Your task to perform on an android device: Add jbl charge 4 to the cart on amazon, then select checkout. Image 0: 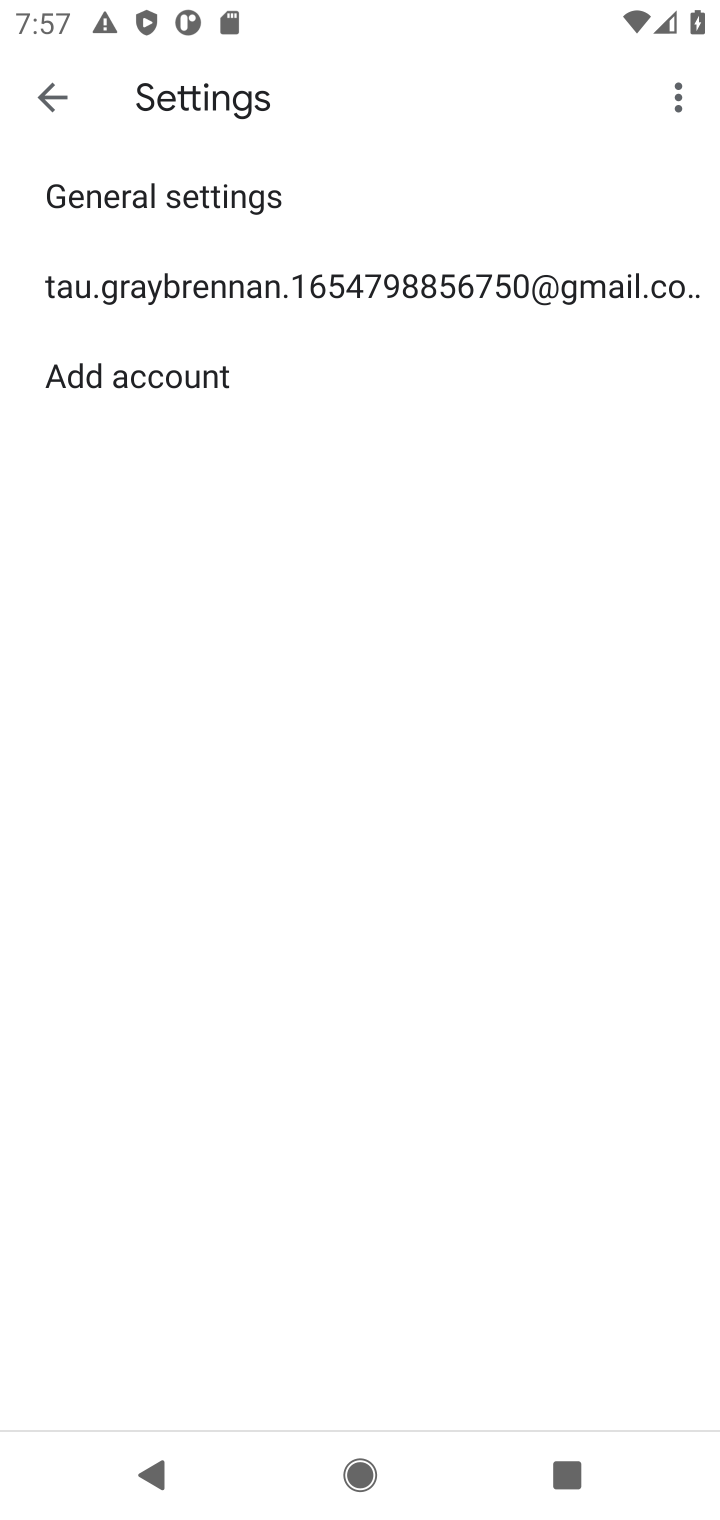
Step 0: press home button
Your task to perform on an android device: Add jbl charge 4 to the cart on amazon, then select checkout. Image 1: 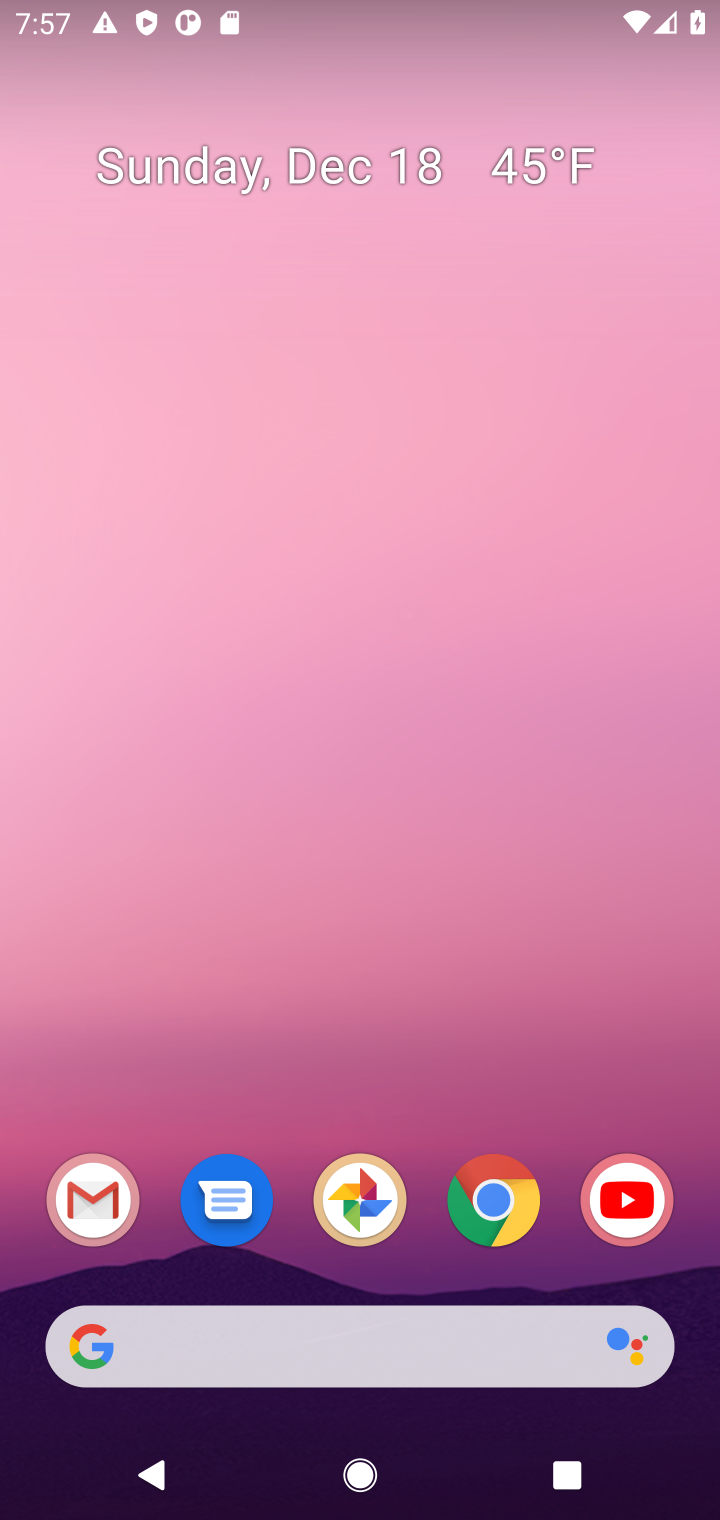
Step 1: click (502, 1206)
Your task to perform on an android device: Add jbl charge 4 to the cart on amazon, then select checkout. Image 2: 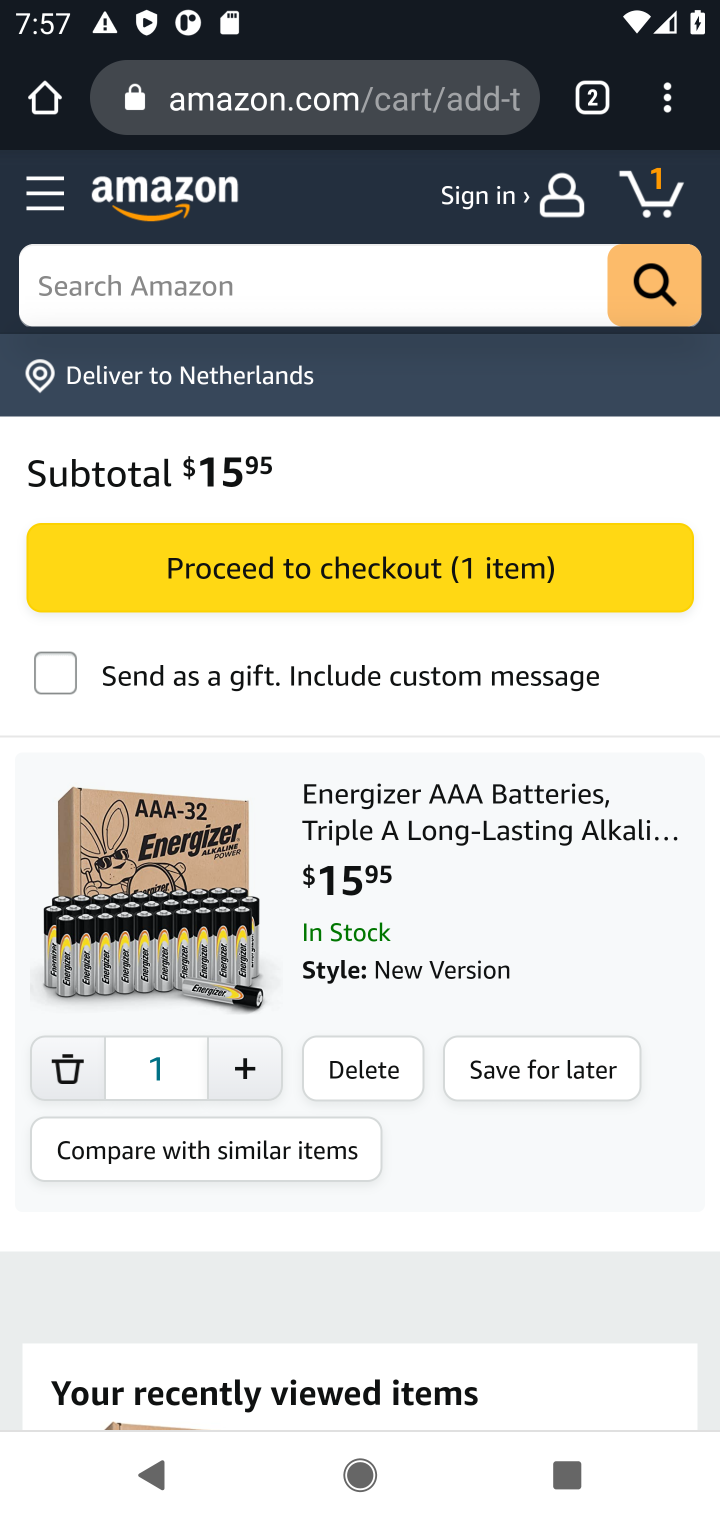
Step 2: click (117, 290)
Your task to perform on an android device: Add jbl charge 4 to the cart on amazon, then select checkout. Image 3: 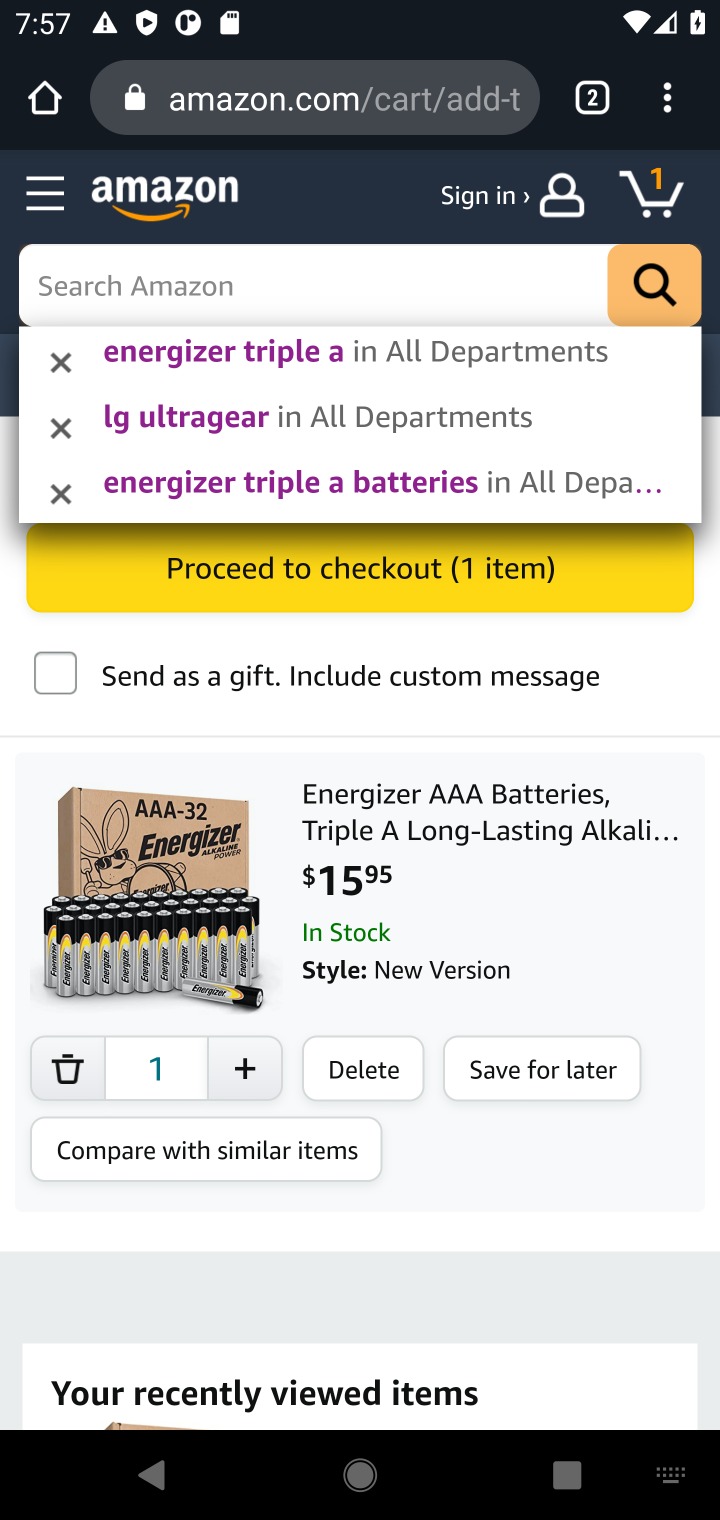
Step 3: type "jbl charge 4"
Your task to perform on an android device: Add jbl charge 4 to the cart on amazon, then select checkout. Image 4: 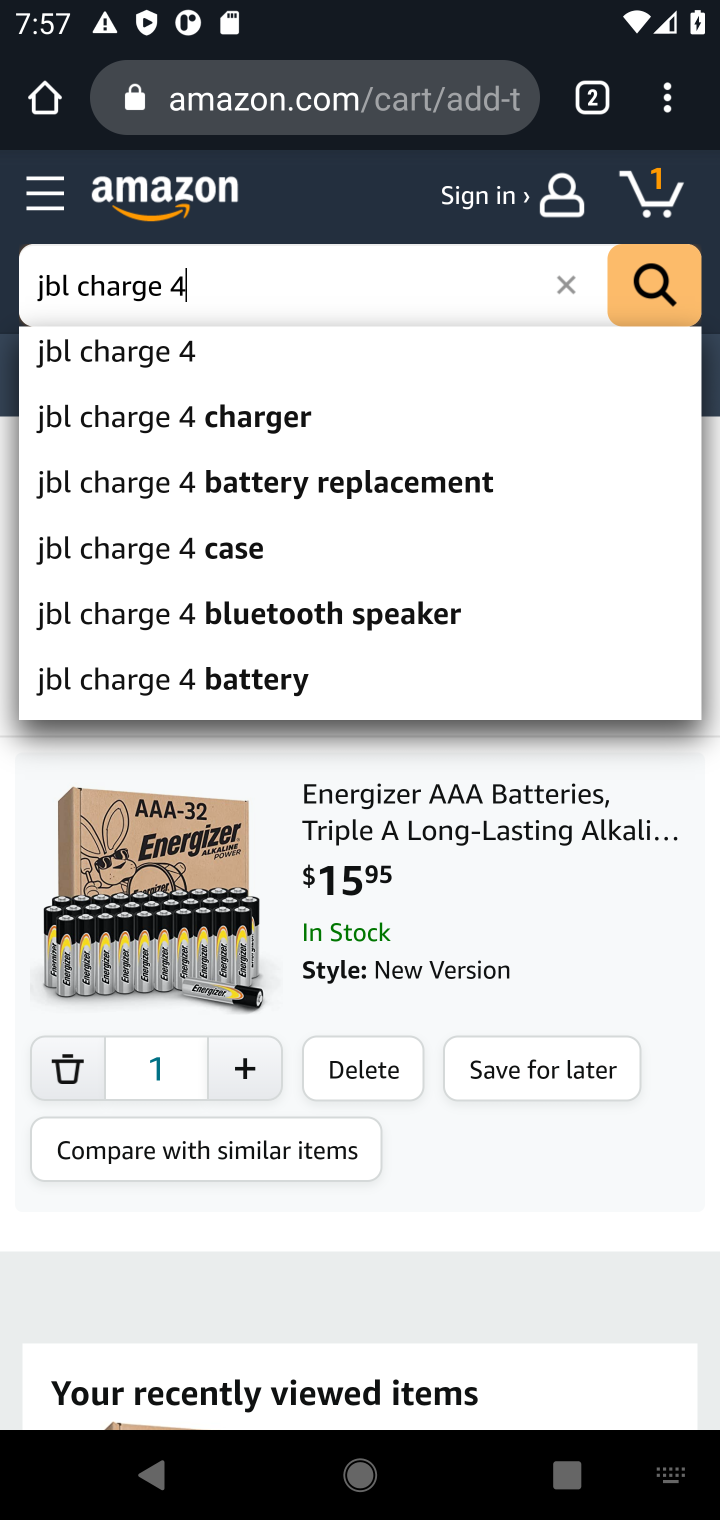
Step 4: click (107, 352)
Your task to perform on an android device: Add jbl charge 4 to the cart on amazon, then select checkout. Image 5: 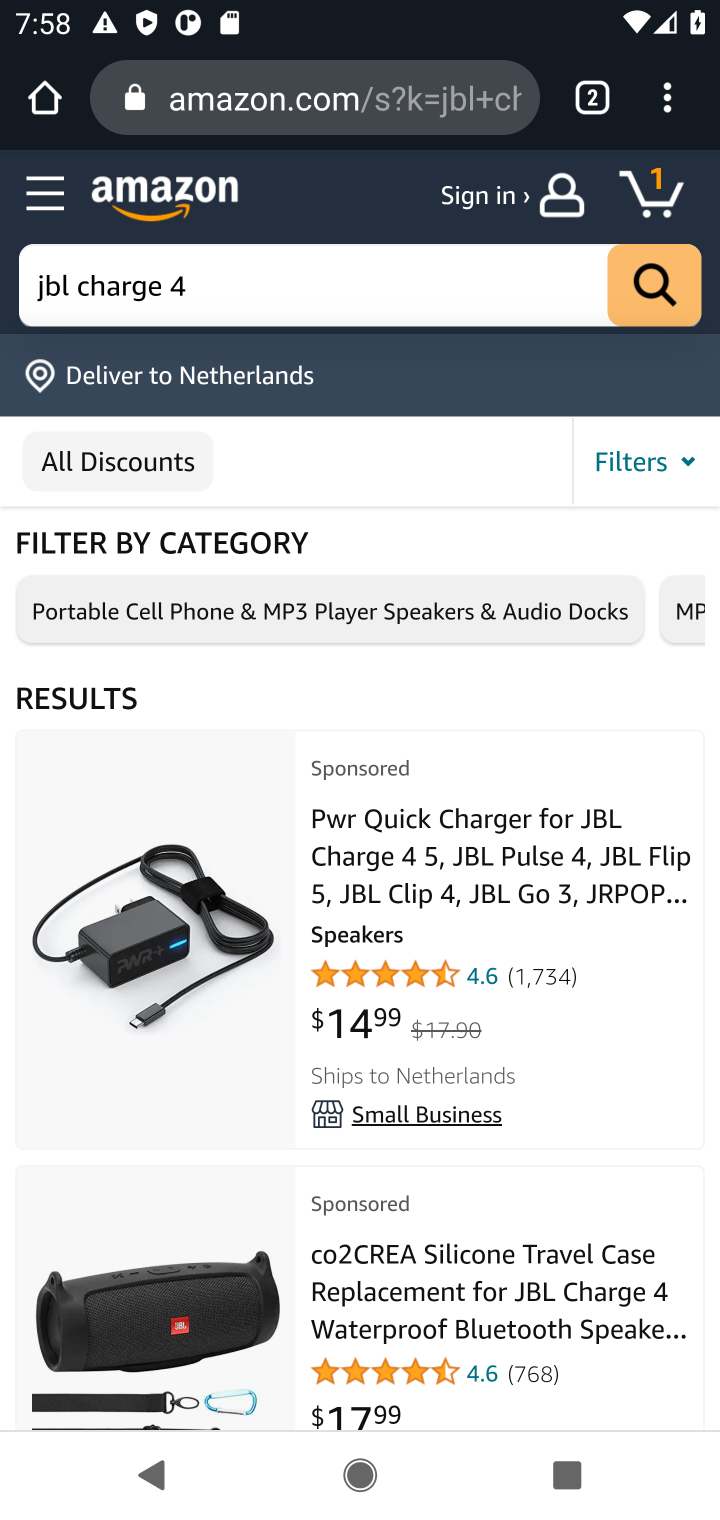
Step 5: click (406, 847)
Your task to perform on an android device: Add jbl charge 4 to the cart on amazon, then select checkout. Image 6: 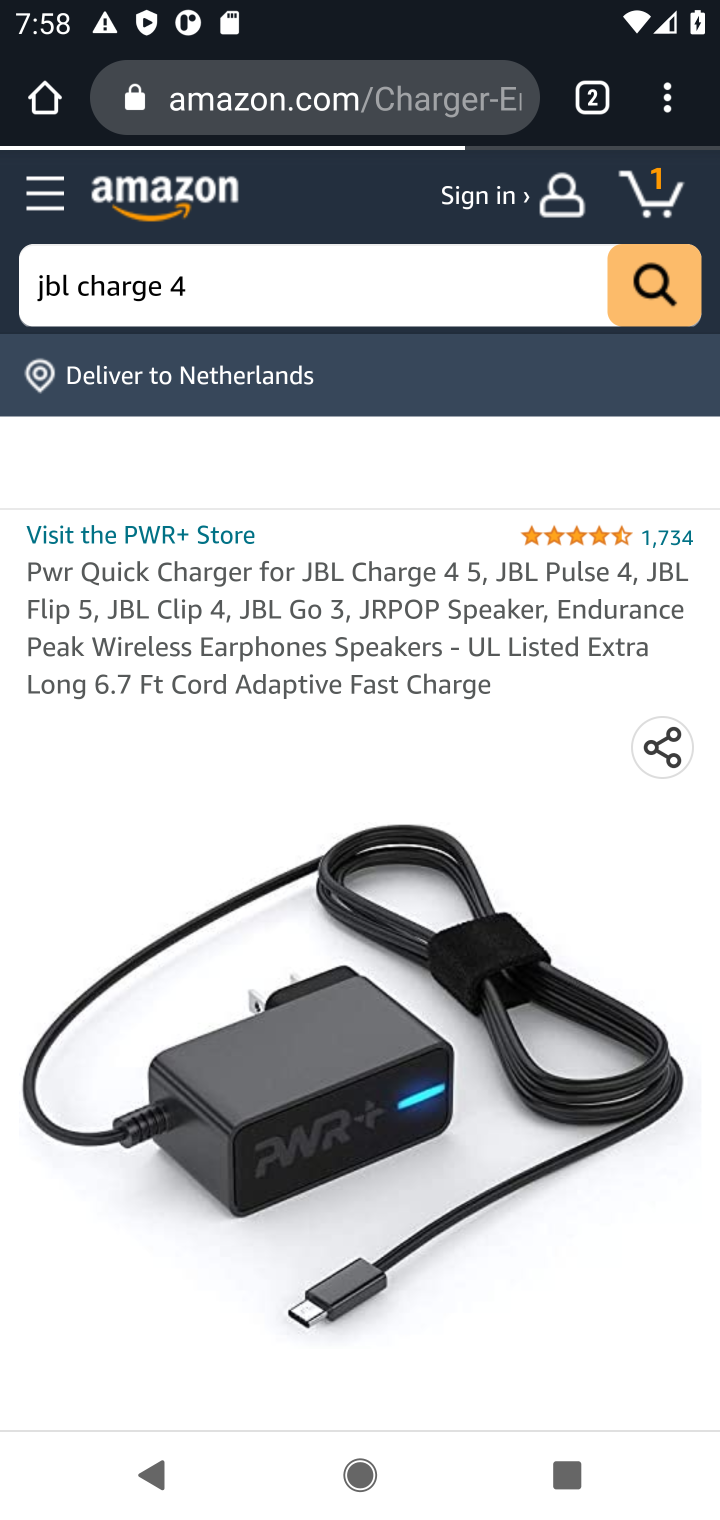
Step 6: drag from (309, 1191) to (304, 496)
Your task to perform on an android device: Add jbl charge 4 to the cart on amazon, then select checkout. Image 7: 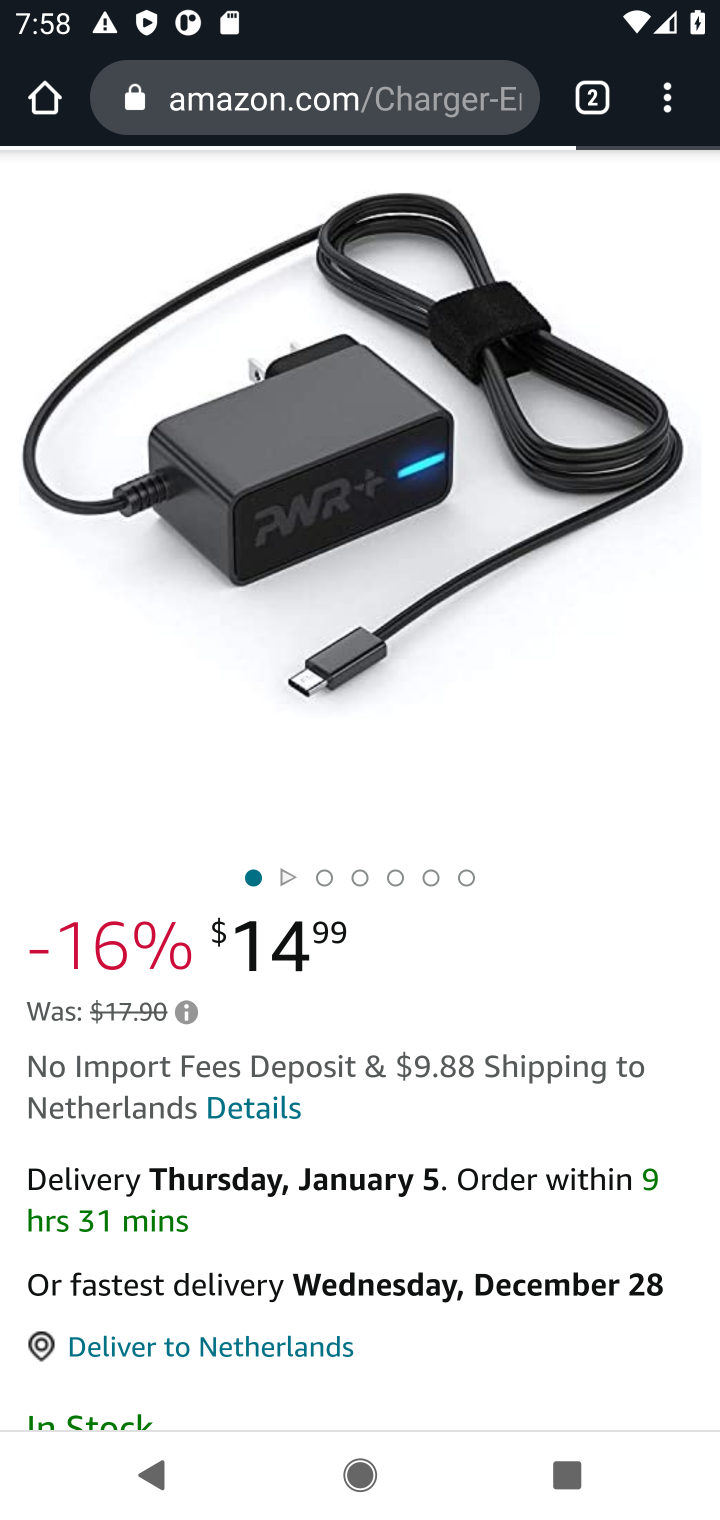
Step 7: drag from (303, 1275) to (244, 471)
Your task to perform on an android device: Add jbl charge 4 to the cart on amazon, then select checkout. Image 8: 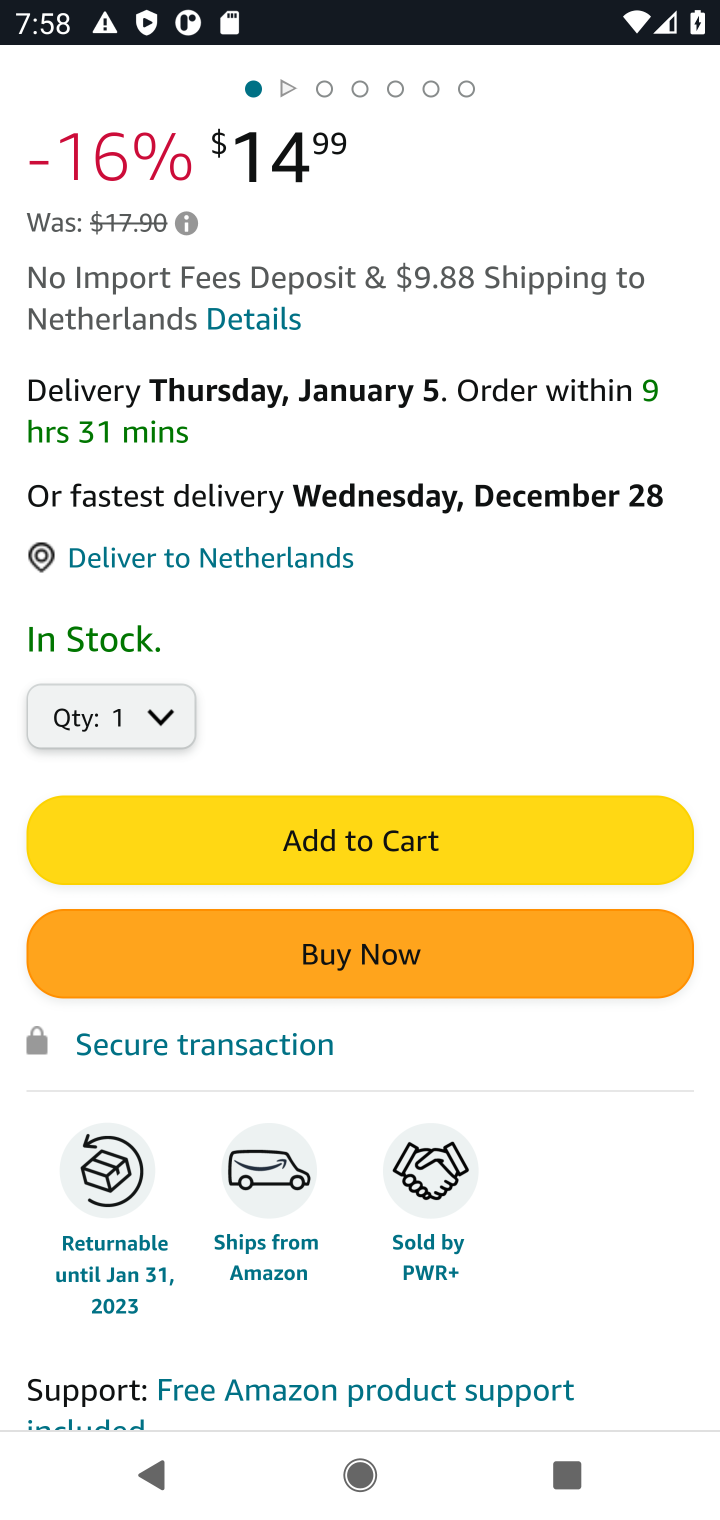
Step 8: click (319, 832)
Your task to perform on an android device: Add jbl charge 4 to the cart on amazon, then select checkout. Image 9: 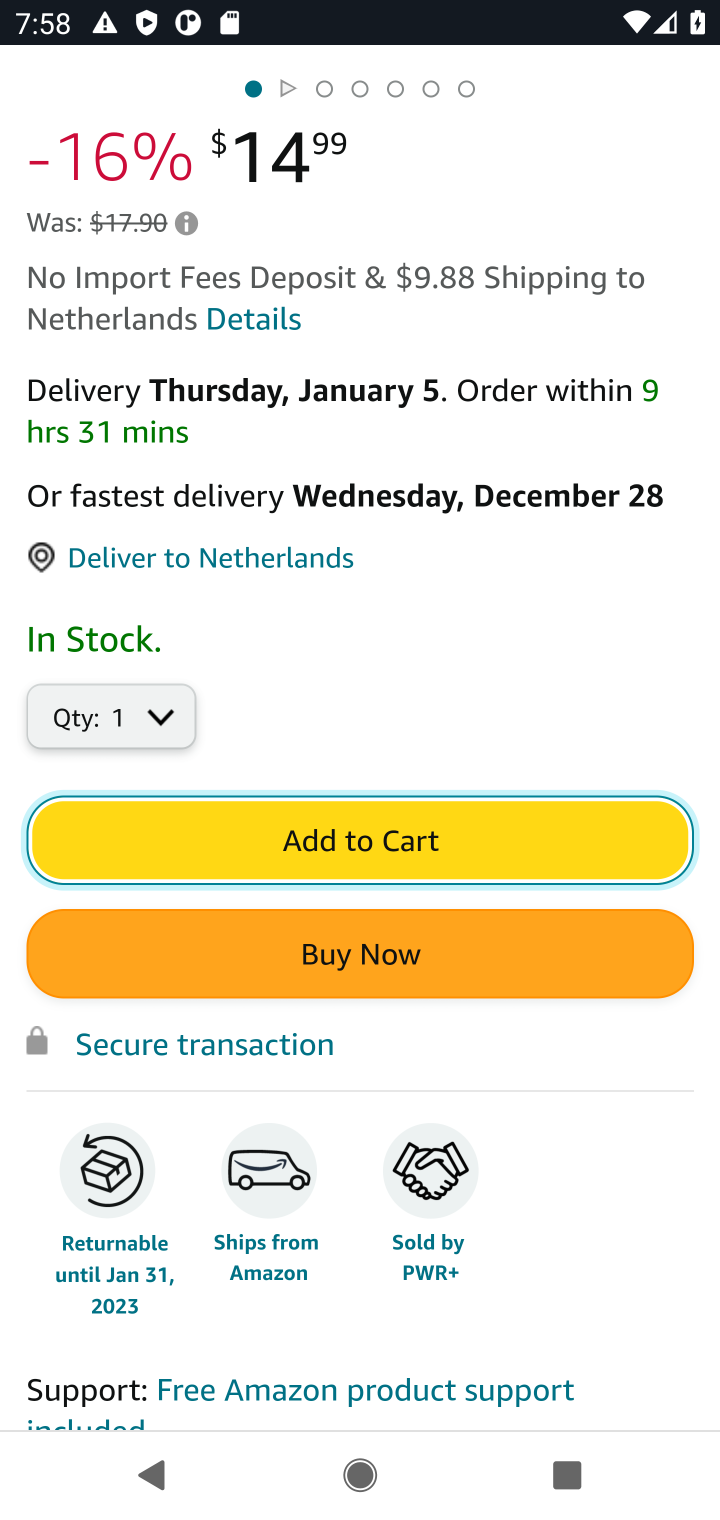
Step 9: click (352, 852)
Your task to perform on an android device: Add jbl charge 4 to the cart on amazon, then select checkout. Image 10: 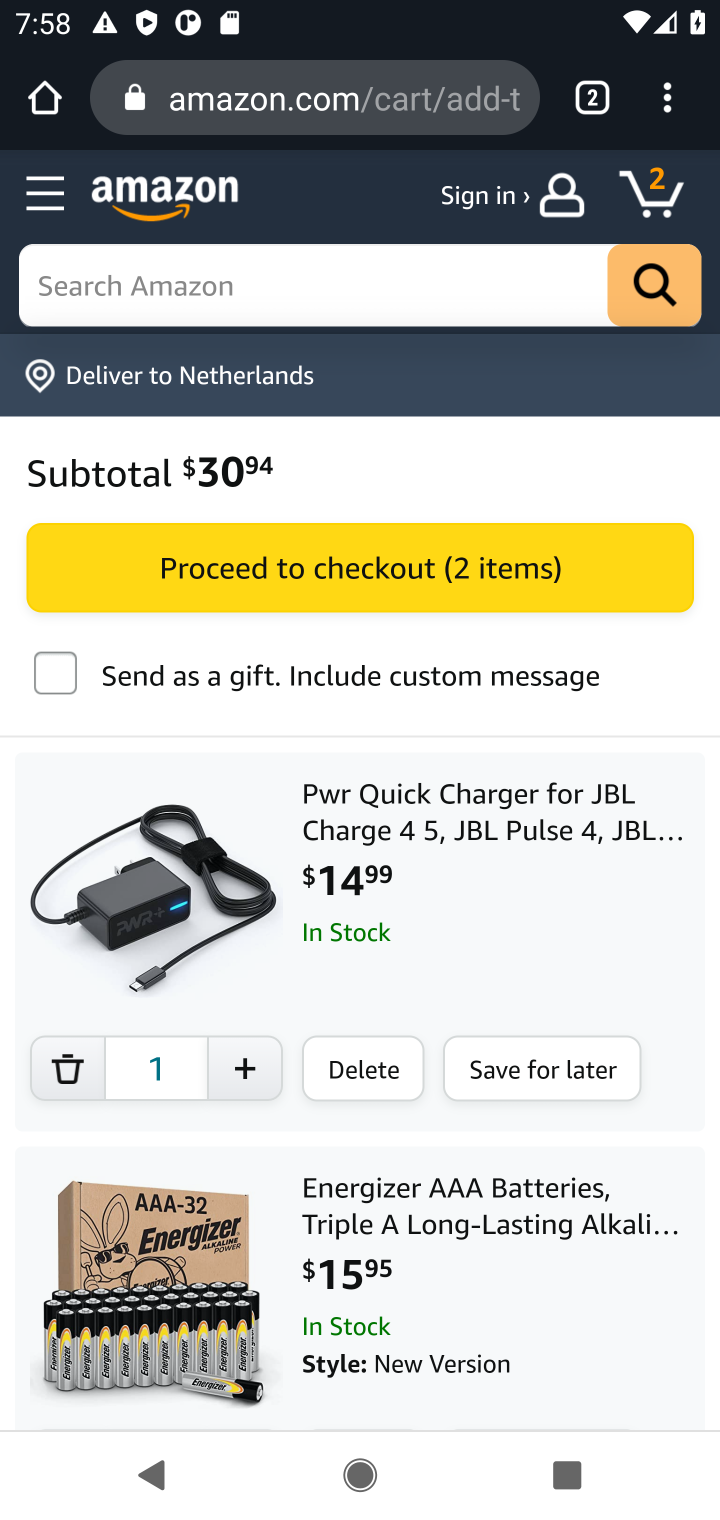
Step 10: click (326, 575)
Your task to perform on an android device: Add jbl charge 4 to the cart on amazon, then select checkout. Image 11: 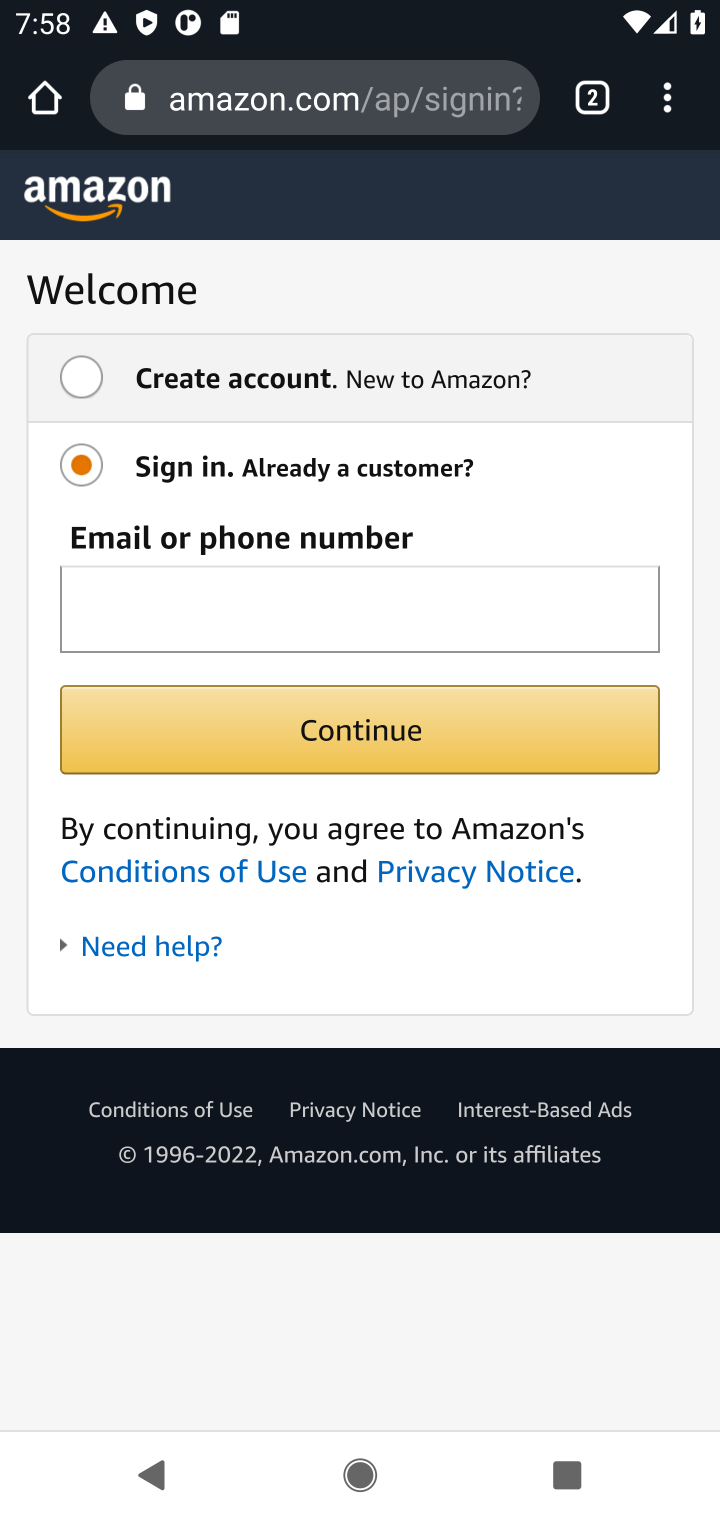
Step 11: task complete